Your task to perform on an android device: see sites visited before in the chrome app Image 0: 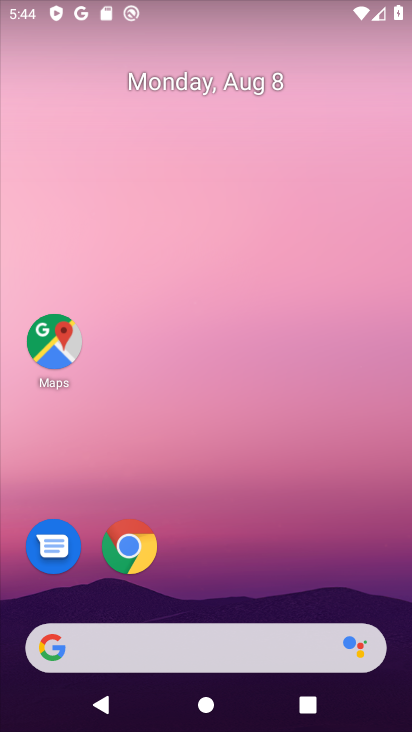
Step 0: click (149, 560)
Your task to perform on an android device: see sites visited before in the chrome app Image 1: 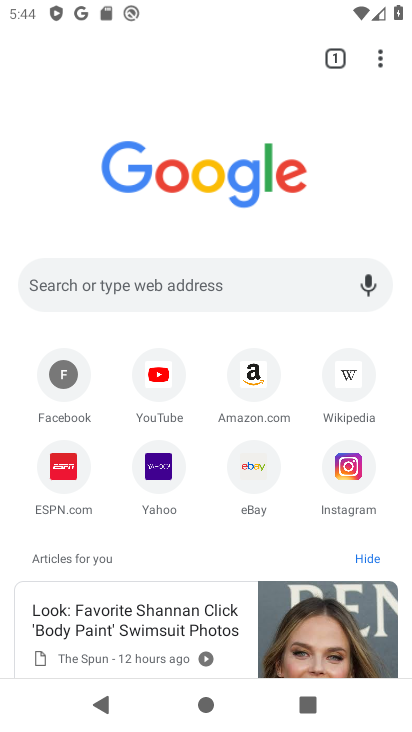
Step 1: click (389, 61)
Your task to perform on an android device: see sites visited before in the chrome app Image 2: 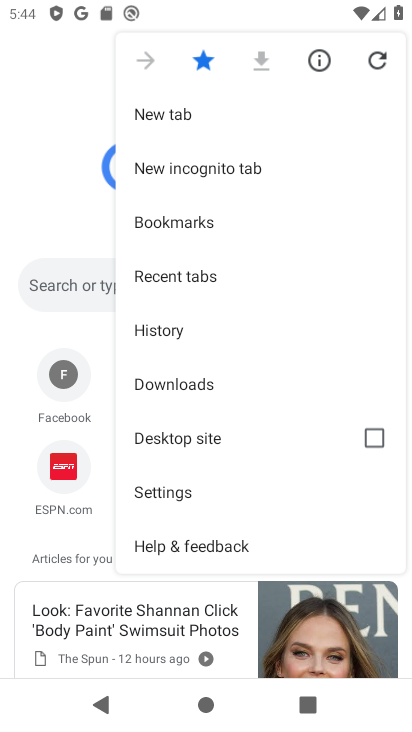
Step 2: click (200, 287)
Your task to perform on an android device: see sites visited before in the chrome app Image 3: 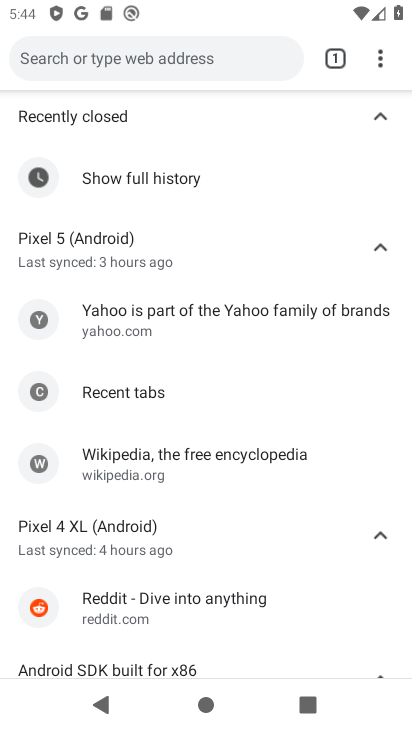
Step 3: task complete